Your task to perform on an android device: Open CNN.com Image 0: 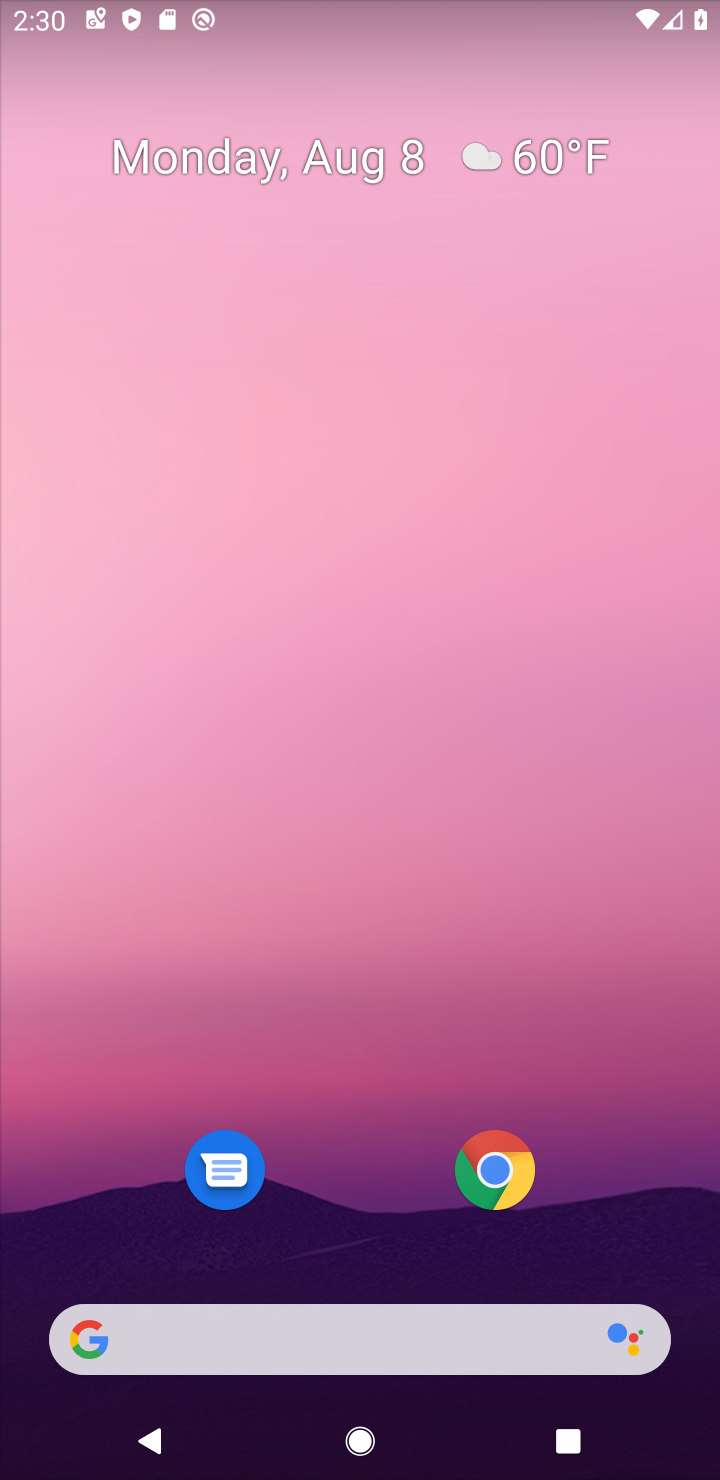
Step 0: click (501, 1208)
Your task to perform on an android device: Open CNN.com Image 1: 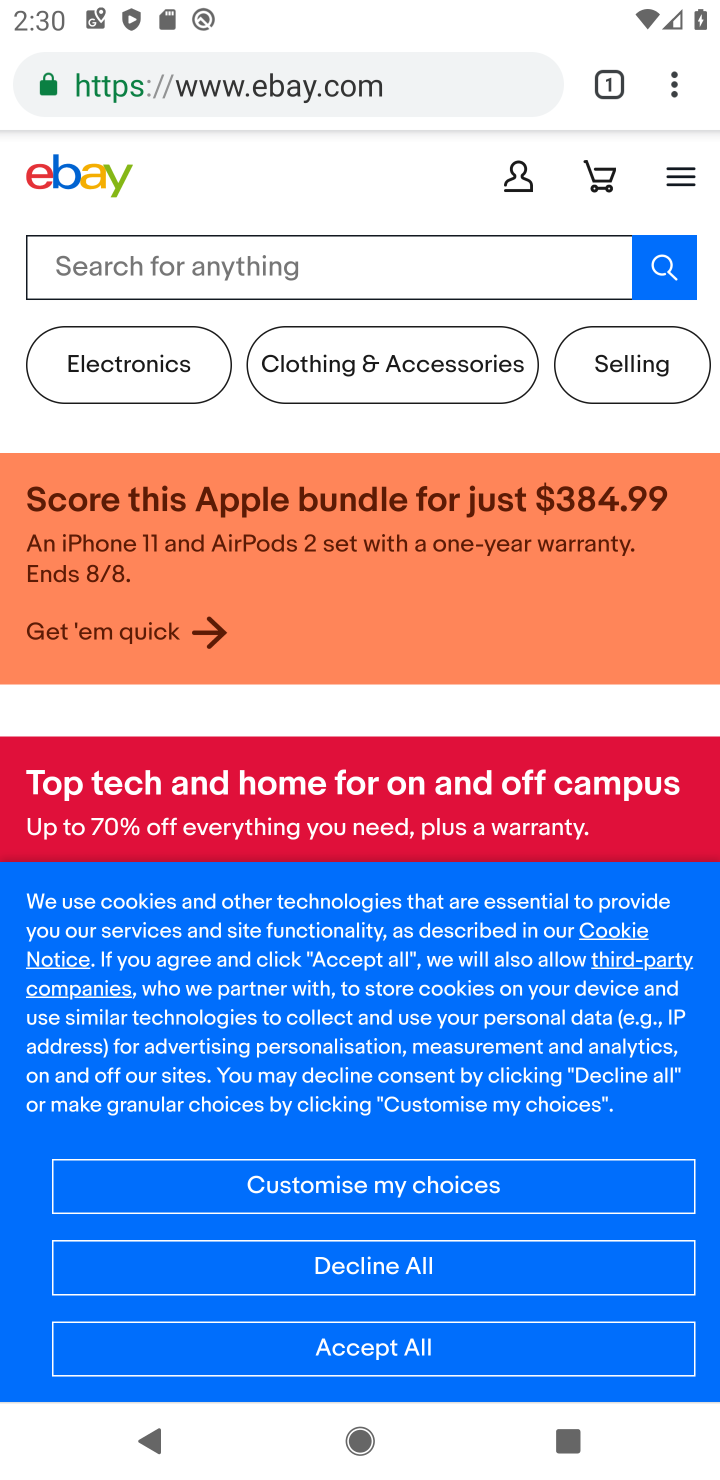
Step 1: click (658, 68)
Your task to perform on an android device: Open CNN.com Image 2: 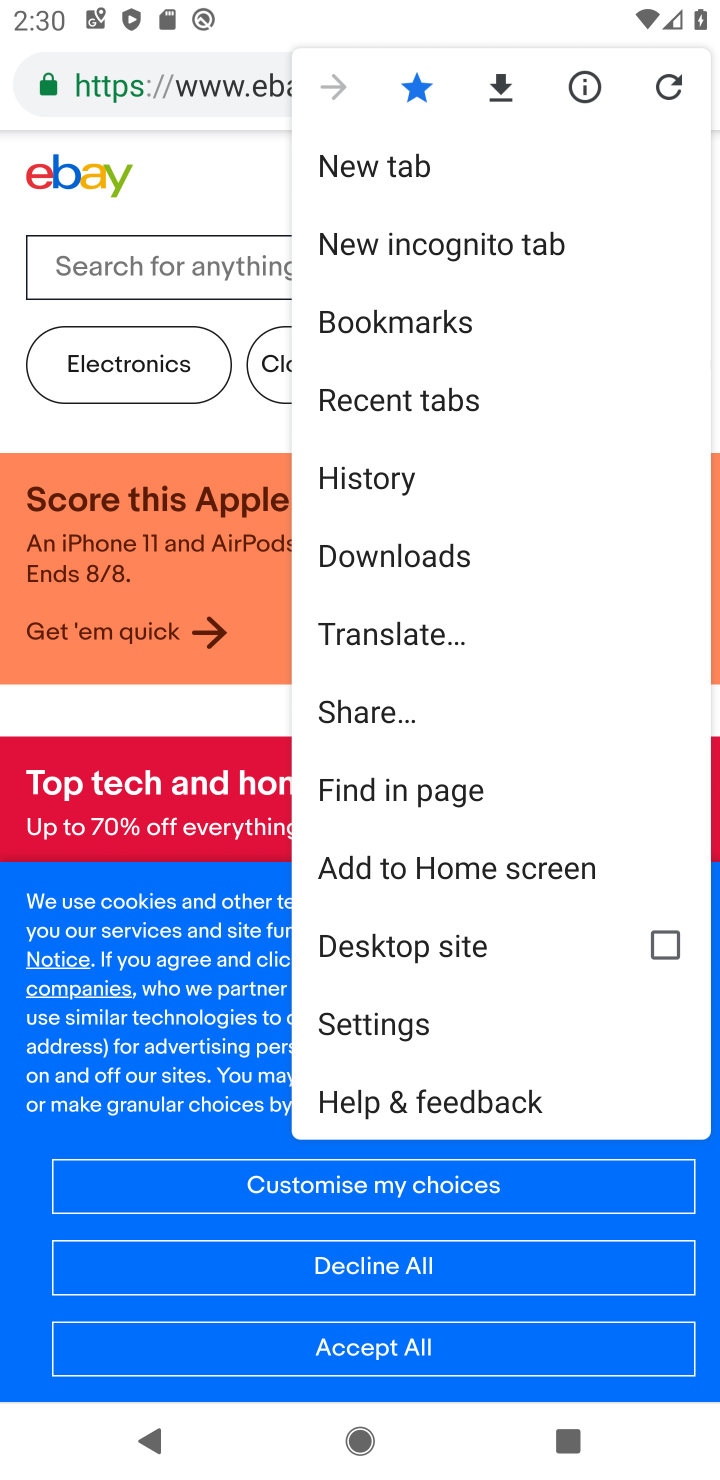
Step 2: click (397, 152)
Your task to perform on an android device: Open CNN.com Image 3: 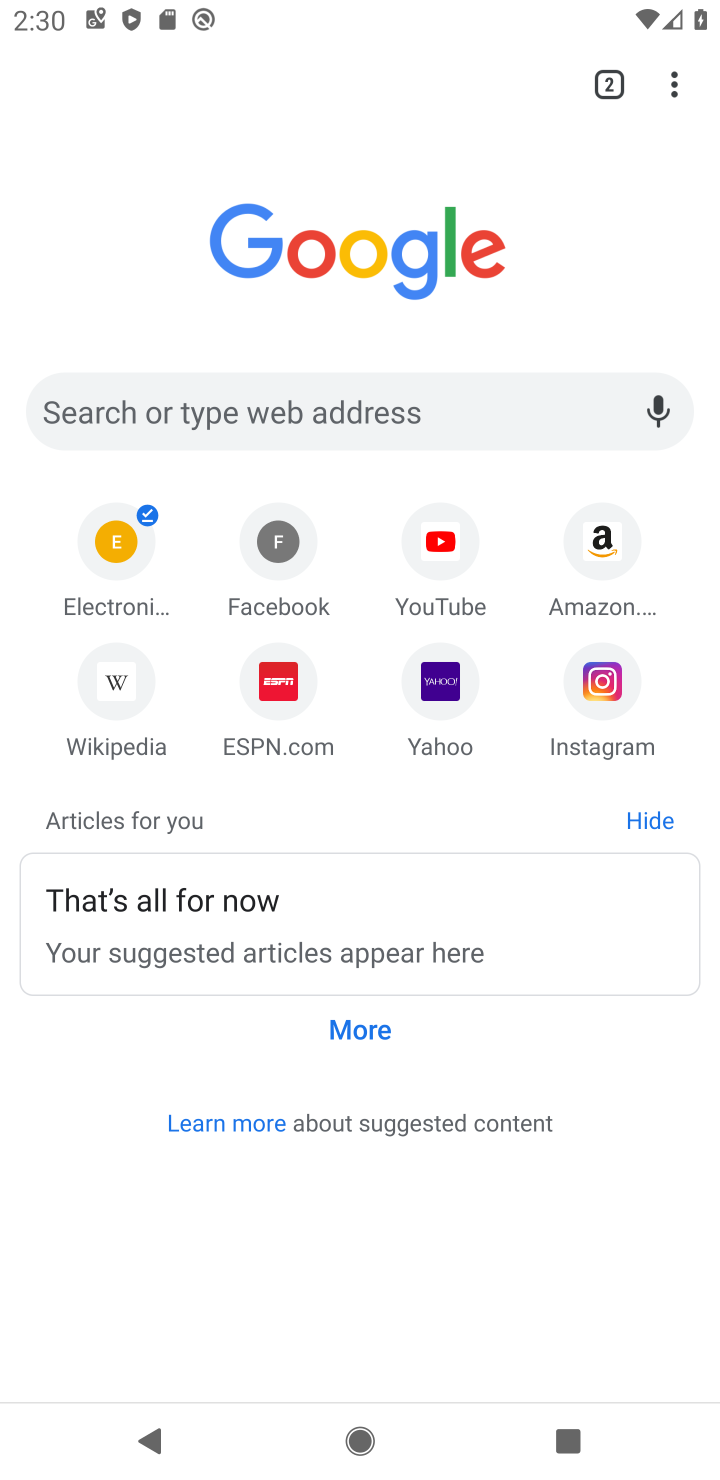
Step 3: click (207, 430)
Your task to perform on an android device: Open CNN.com Image 4: 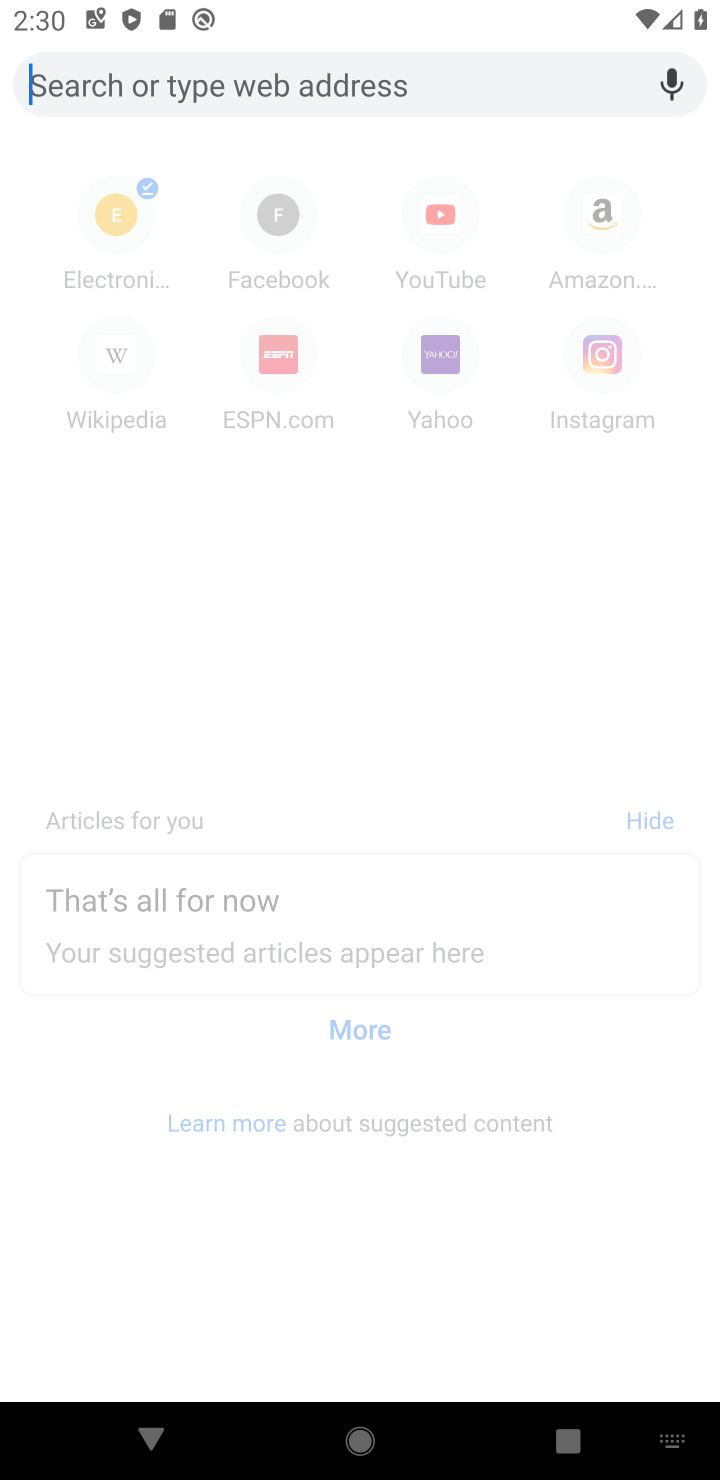
Step 4: type "CNN.com"
Your task to perform on an android device: Open CNN.com Image 5: 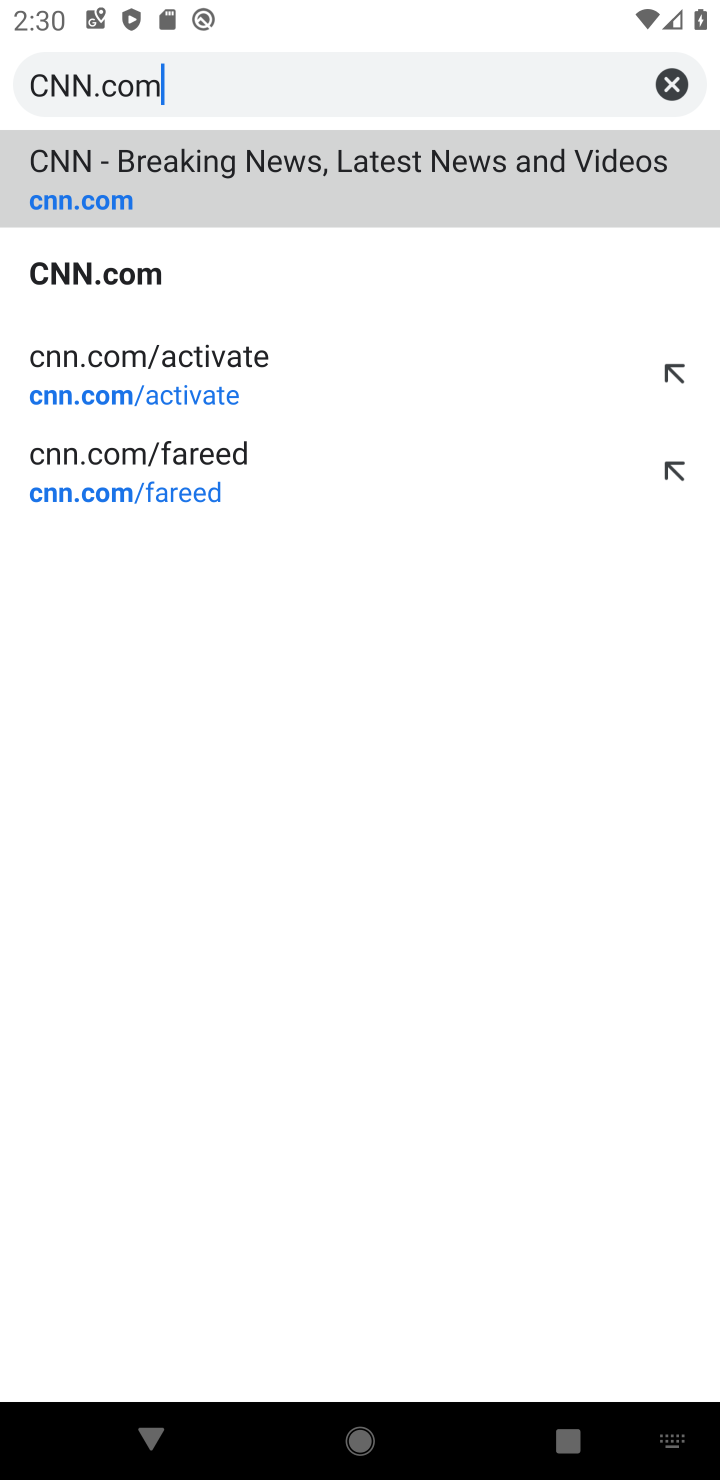
Step 5: type ""
Your task to perform on an android device: Open CNN.com Image 6: 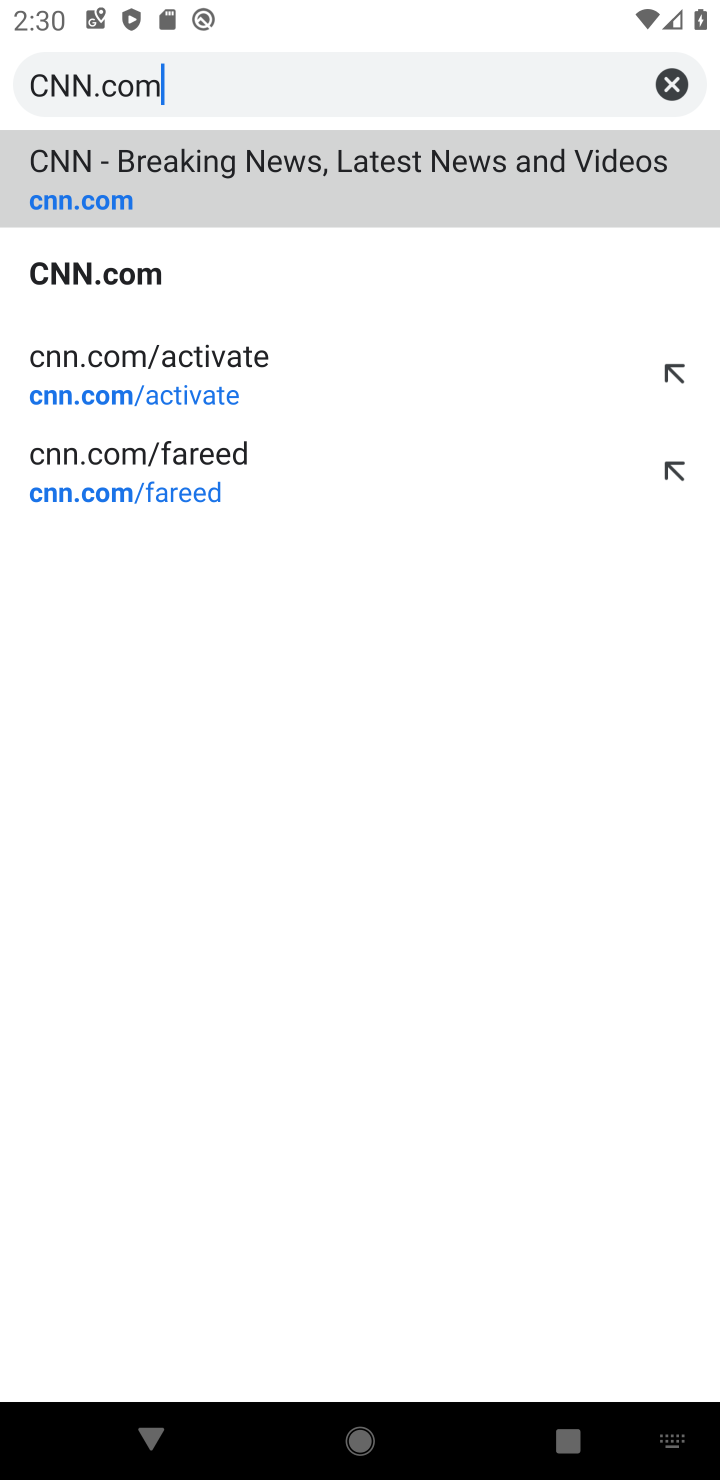
Step 6: click (326, 204)
Your task to perform on an android device: Open CNN.com Image 7: 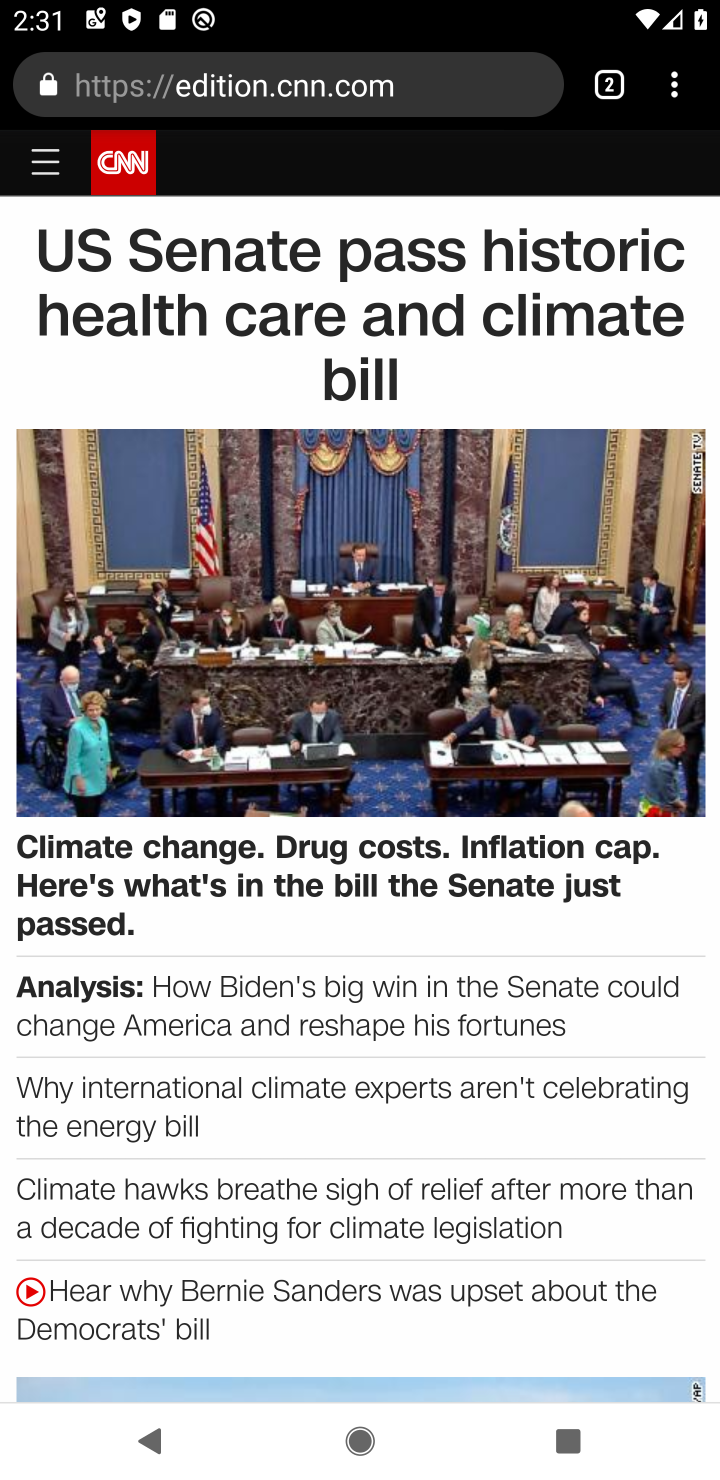
Step 7: task complete